Your task to perform on an android device: Is it going to rain tomorrow? Image 0: 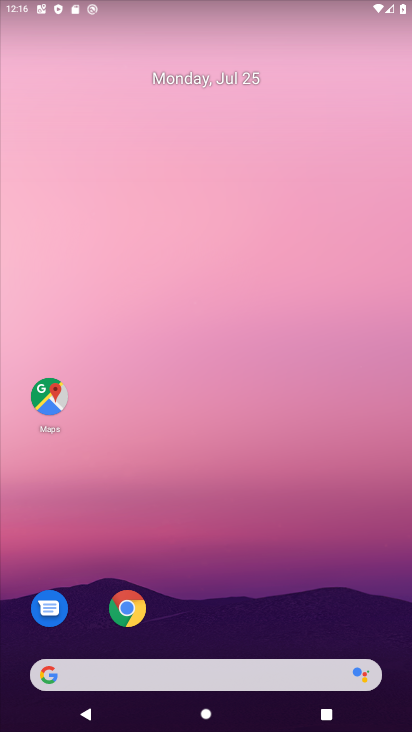
Step 0: click (218, 680)
Your task to perform on an android device: Is it going to rain tomorrow? Image 1: 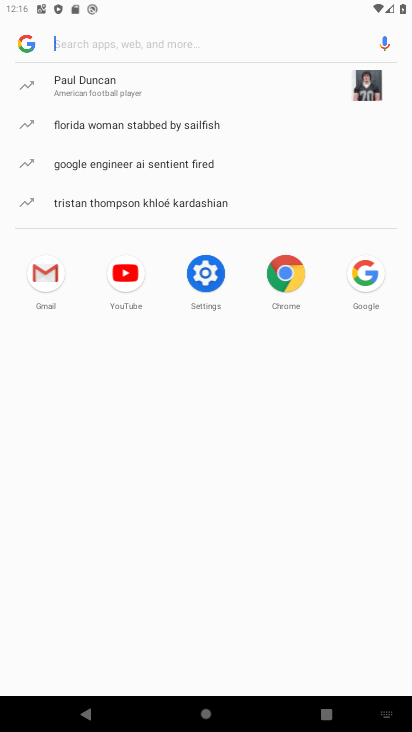
Step 1: type "Is it going to rain tomorrow?"
Your task to perform on an android device: Is it going to rain tomorrow? Image 2: 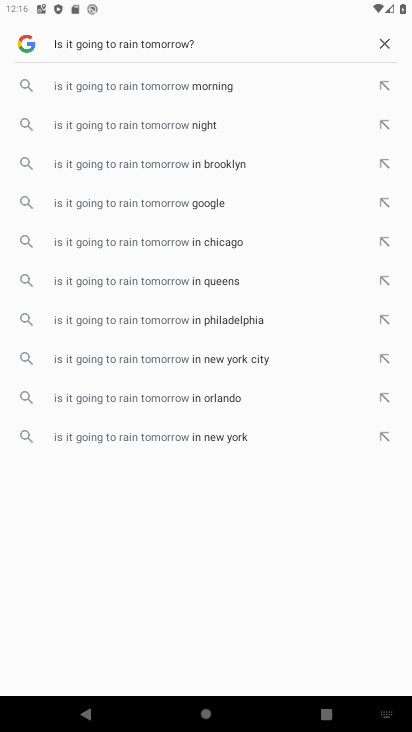
Step 2: click (152, 98)
Your task to perform on an android device: Is it going to rain tomorrow? Image 3: 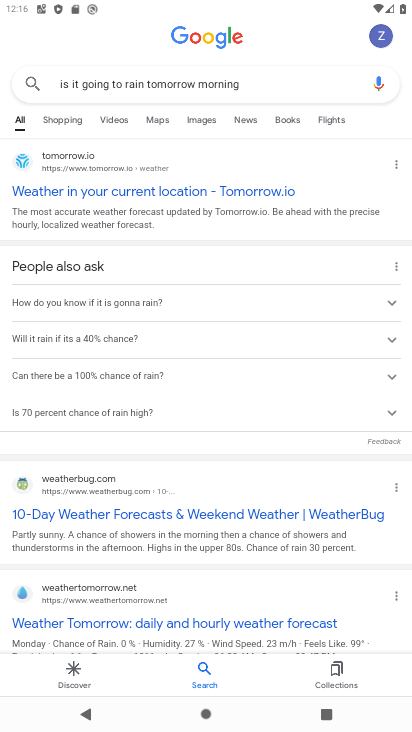
Step 3: click (75, 517)
Your task to perform on an android device: Is it going to rain tomorrow? Image 4: 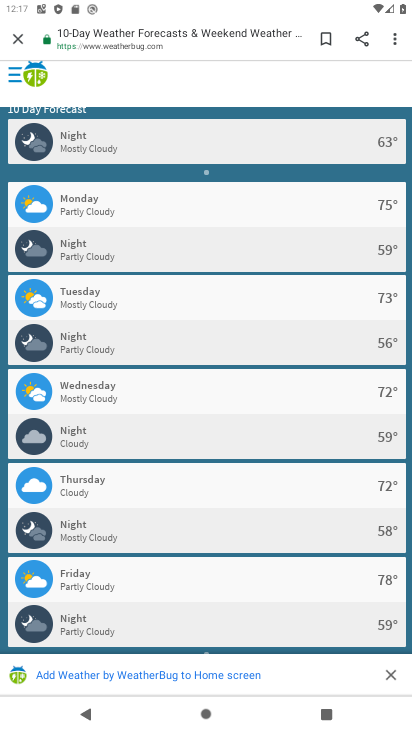
Step 4: task complete